Your task to perform on an android device: change the upload size in google photos Image 0: 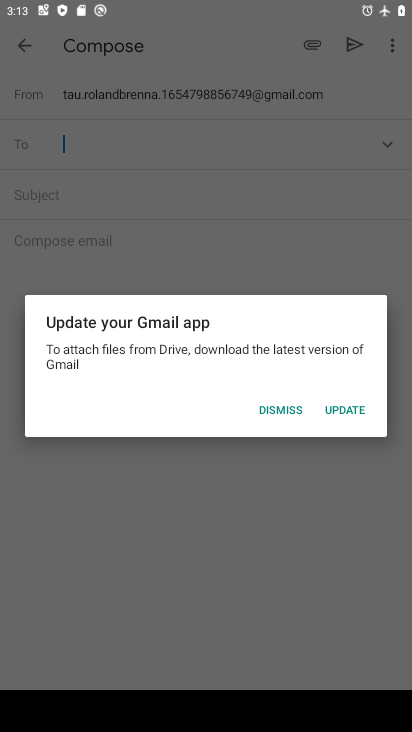
Step 0: press home button
Your task to perform on an android device: change the upload size in google photos Image 1: 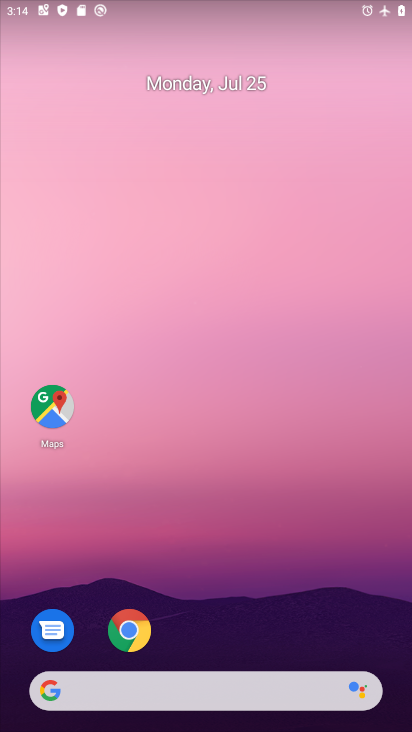
Step 1: drag from (165, 658) to (196, 3)
Your task to perform on an android device: change the upload size in google photos Image 2: 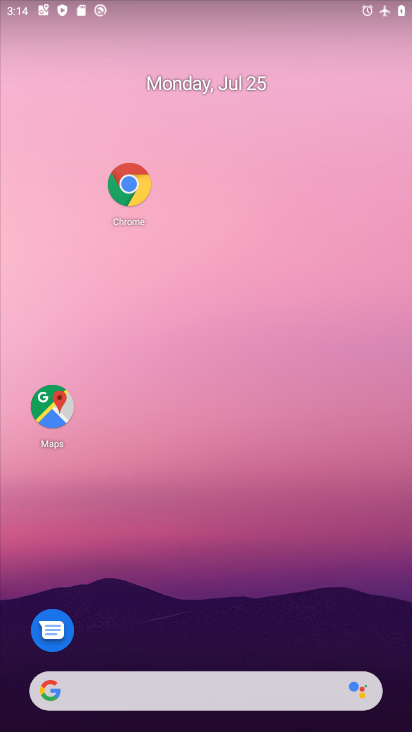
Step 2: drag from (245, 657) to (267, 11)
Your task to perform on an android device: change the upload size in google photos Image 3: 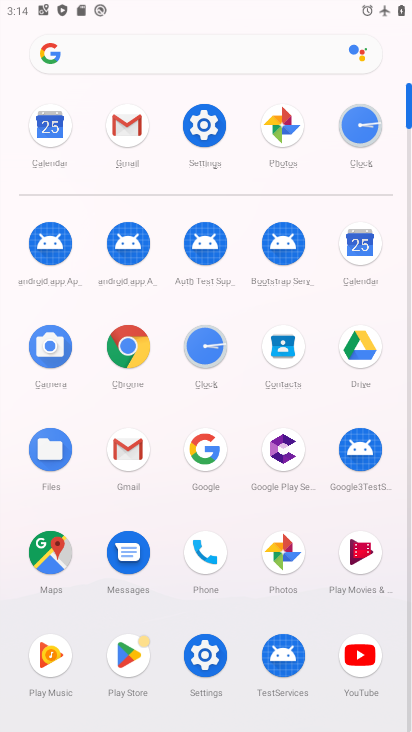
Step 3: click (293, 130)
Your task to perform on an android device: change the upload size in google photos Image 4: 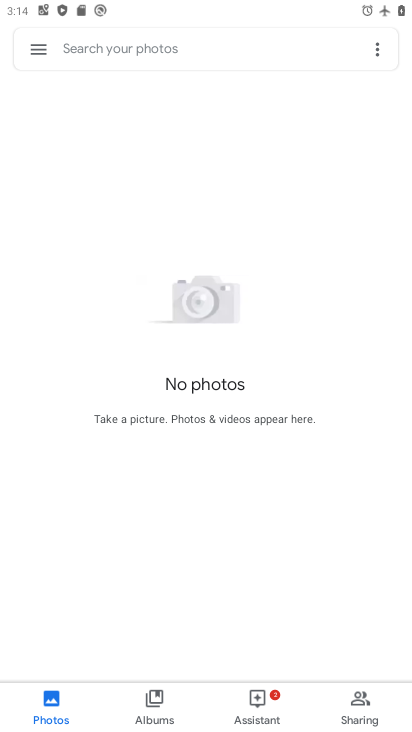
Step 4: task complete